Your task to perform on an android device: Open ESPN.com Image 0: 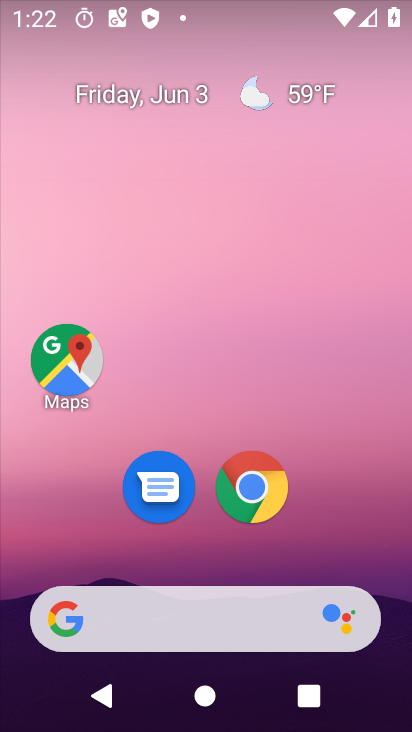
Step 0: click (256, 490)
Your task to perform on an android device: Open ESPN.com Image 1: 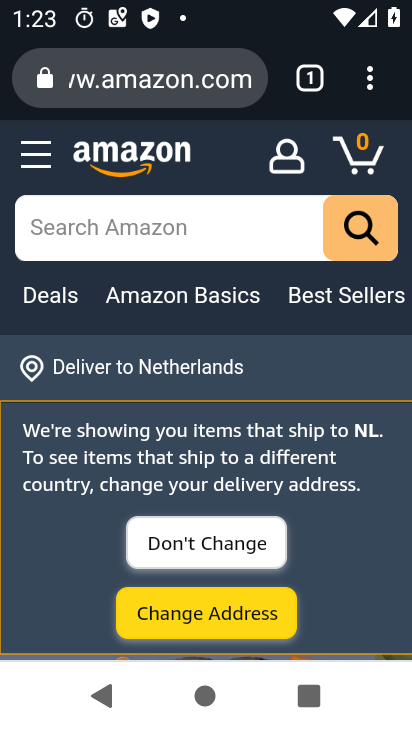
Step 1: click (319, 70)
Your task to perform on an android device: Open ESPN.com Image 2: 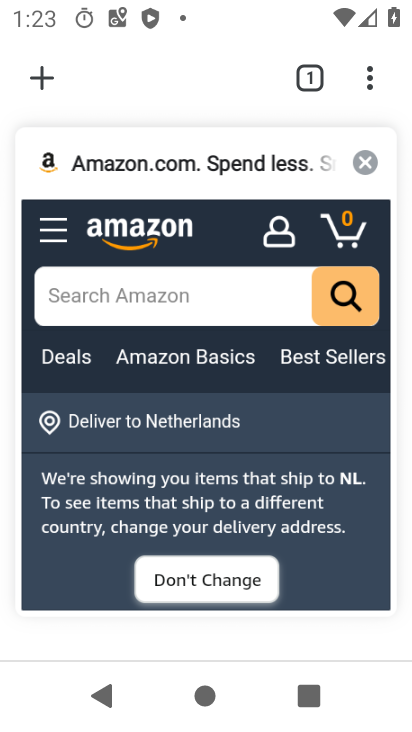
Step 2: click (368, 160)
Your task to perform on an android device: Open ESPN.com Image 3: 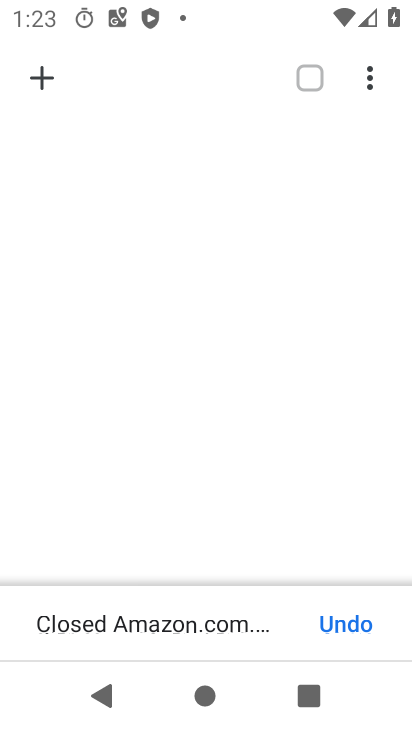
Step 3: click (43, 73)
Your task to perform on an android device: Open ESPN.com Image 4: 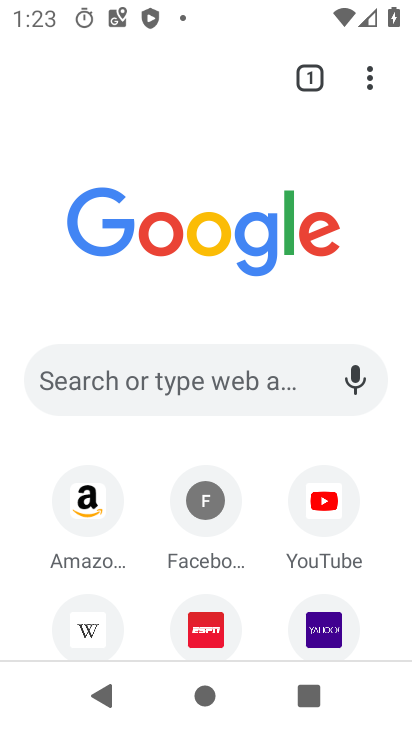
Step 4: drag from (262, 599) to (284, 345)
Your task to perform on an android device: Open ESPN.com Image 5: 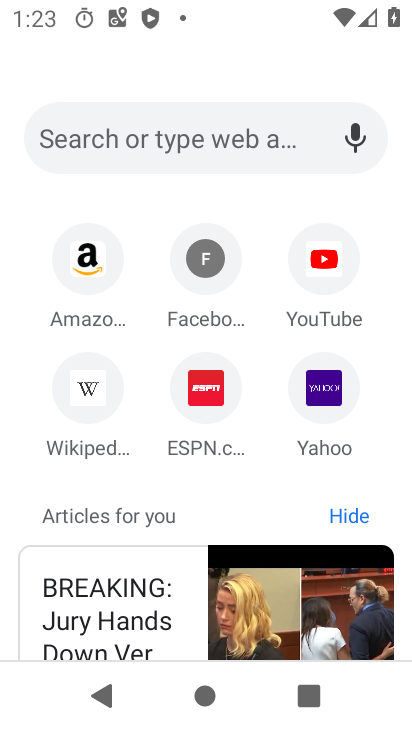
Step 5: click (209, 389)
Your task to perform on an android device: Open ESPN.com Image 6: 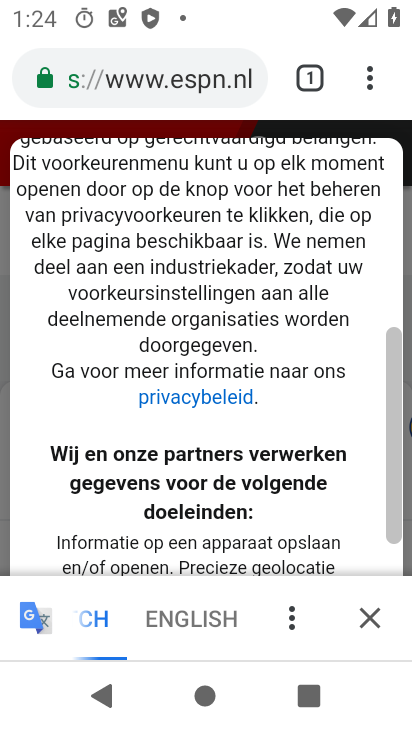
Step 6: drag from (251, 504) to (269, 53)
Your task to perform on an android device: Open ESPN.com Image 7: 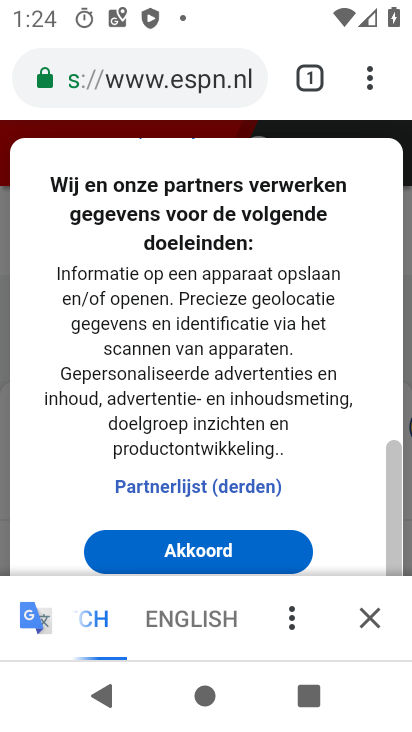
Step 7: click (204, 534)
Your task to perform on an android device: Open ESPN.com Image 8: 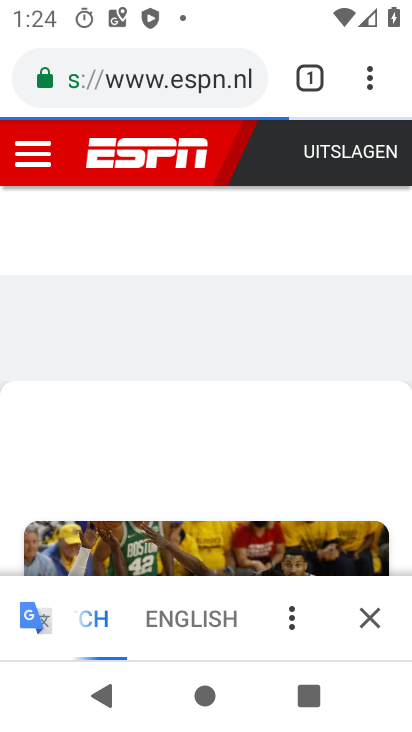
Step 8: task complete